Your task to perform on an android device: delete the emails in spam in the gmail app Image 0: 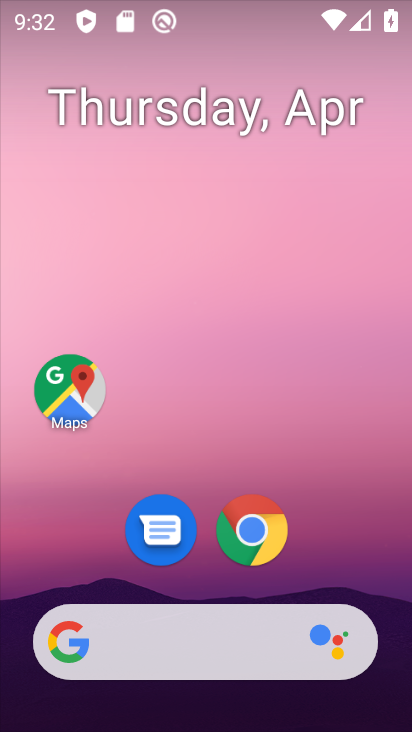
Step 0: drag from (352, 559) to (260, 54)
Your task to perform on an android device: delete the emails in spam in the gmail app Image 1: 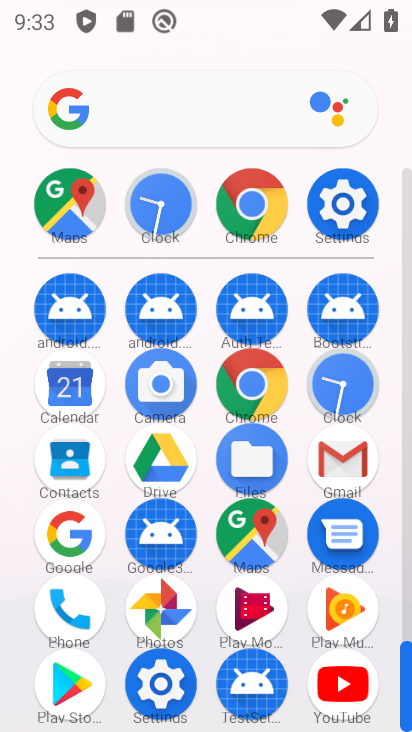
Step 1: click (339, 460)
Your task to perform on an android device: delete the emails in spam in the gmail app Image 2: 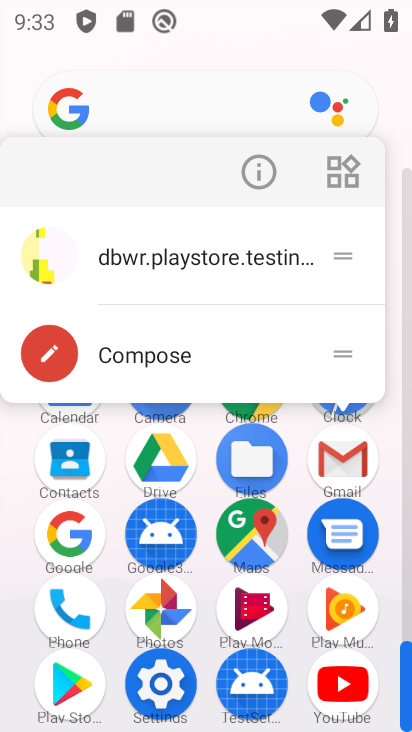
Step 2: click (339, 460)
Your task to perform on an android device: delete the emails in spam in the gmail app Image 3: 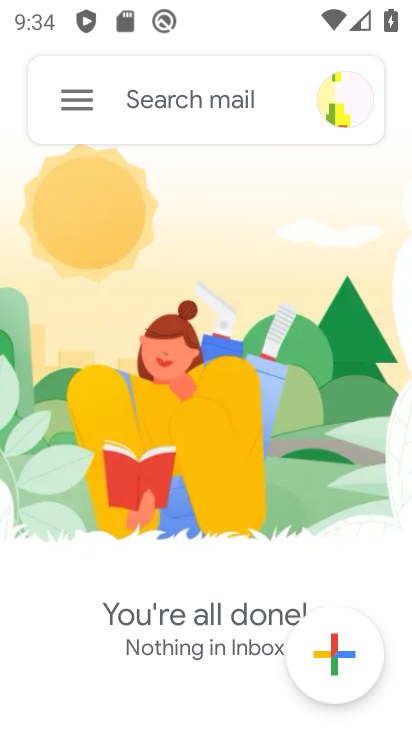
Step 3: click (67, 90)
Your task to perform on an android device: delete the emails in spam in the gmail app Image 4: 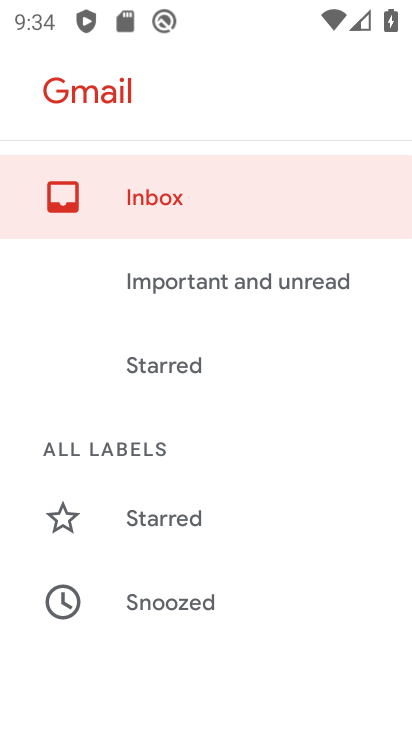
Step 4: drag from (161, 623) to (182, 237)
Your task to perform on an android device: delete the emails in spam in the gmail app Image 5: 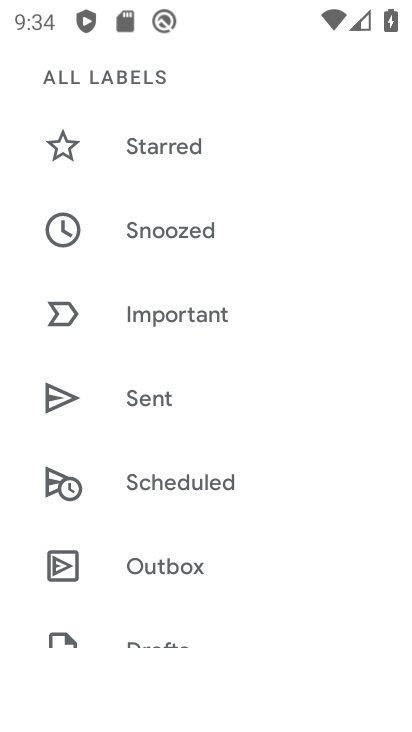
Step 5: drag from (182, 642) to (204, 180)
Your task to perform on an android device: delete the emails in spam in the gmail app Image 6: 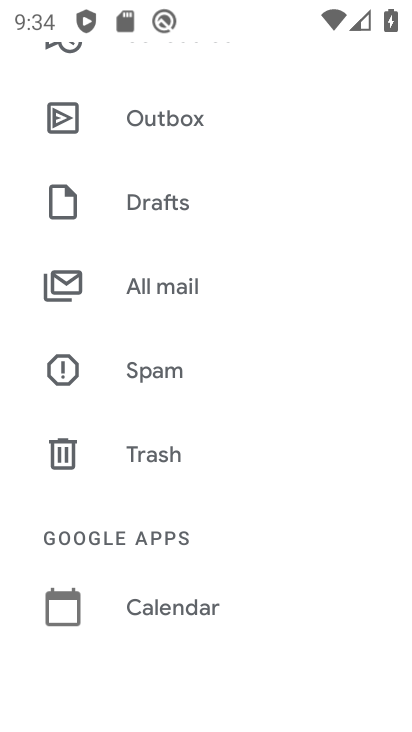
Step 6: click (189, 369)
Your task to perform on an android device: delete the emails in spam in the gmail app Image 7: 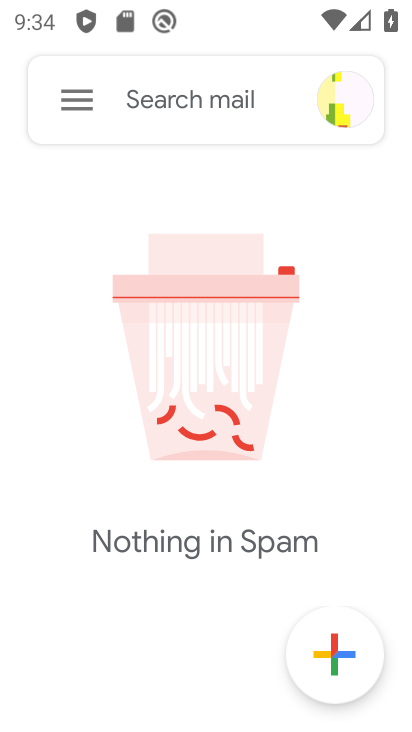
Step 7: task complete